Your task to perform on an android device: turn on notifications settings in the gmail app Image 0: 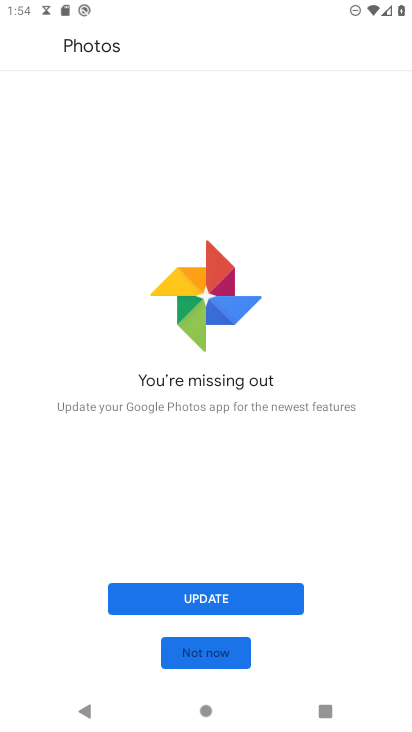
Step 0: press home button
Your task to perform on an android device: turn on notifications settings in the gmail app Image 1: 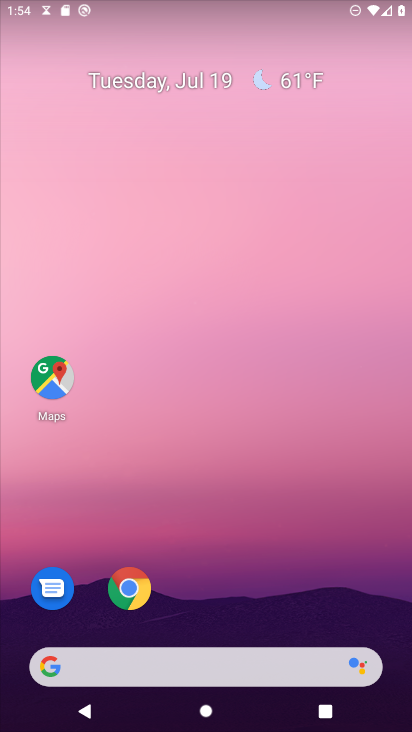
Step 1: drag from (258, 679) to (337, 110)
Your task to perform on an android device: turn on notifications settings in the gmail app Image 2: 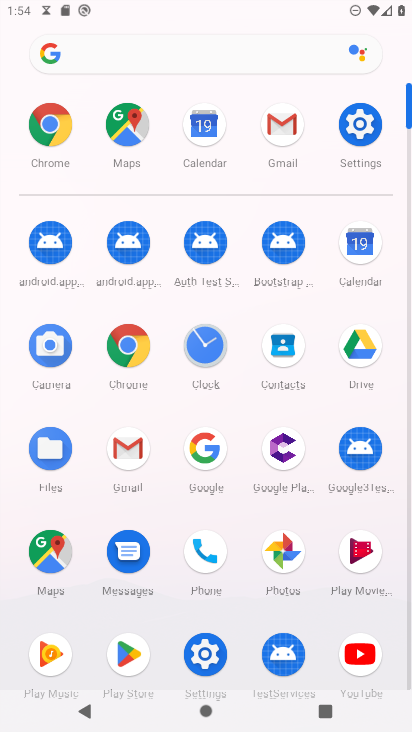
Step 2: click (292, 131)
Your task to perform on an android device: turn on notifications settings in the gmail app Image 3: 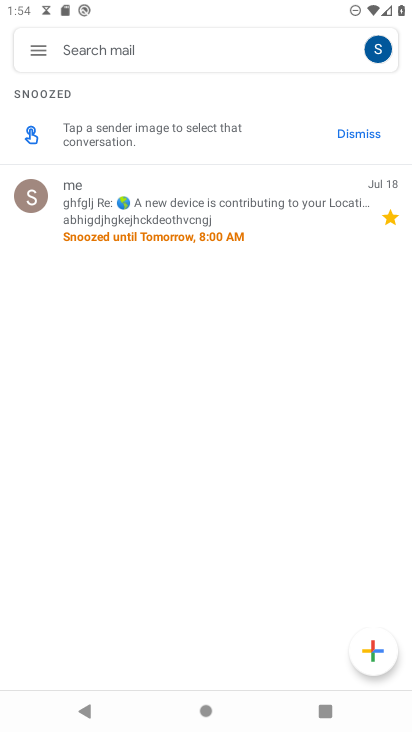
Step 3: click (43, 50)
Your task to perform on an android device: turn on notifications settings in the gmail app Image 4: 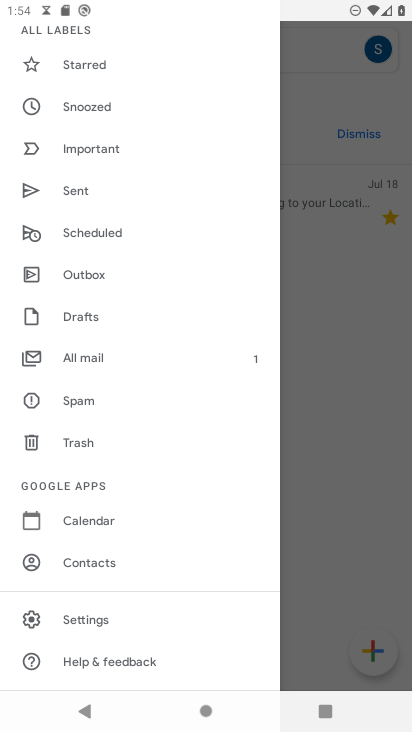
Step 4: click (95, 616)
Your task to perform on an android device: turn on notifications settings in the gmail app Image 5: 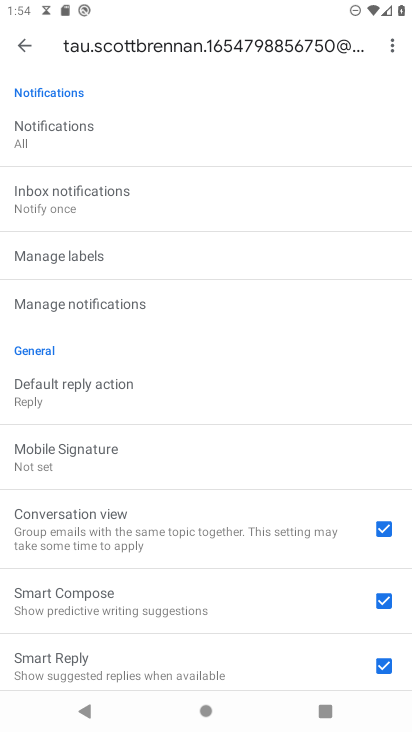
Step 5: click (78, 135)
Your task to perform on an android device: turn on notifications settings in the gmail app Image 6: 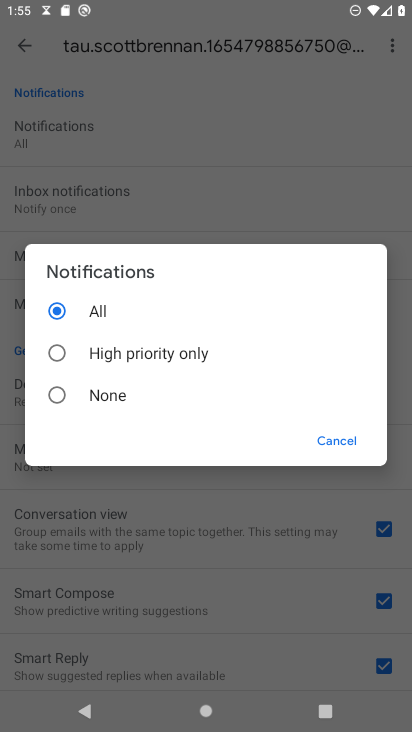
Step 6: task complete